Your task to perform on an android device: What's the weather today? Image 0: 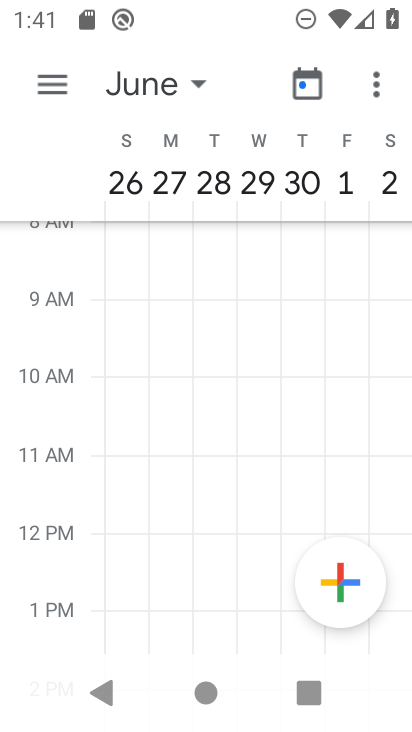
Step 0: press home button
Your task to perform on an android device: What's the weather today? Image 1: 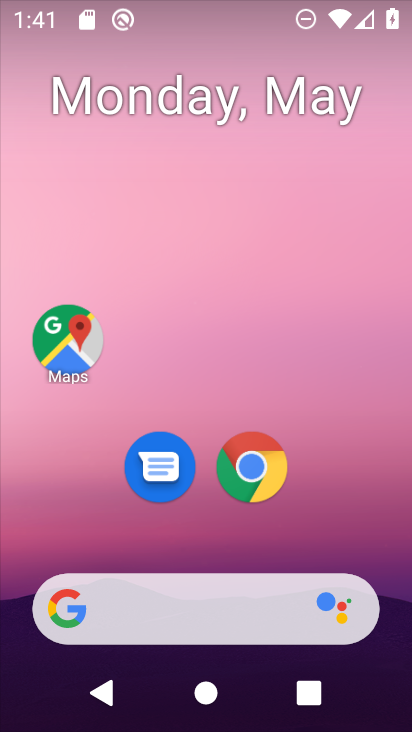
Step 1: drag from (169, 562) to (263, 106)
Your task to perform on an android device: What's the weather today? Image 2: 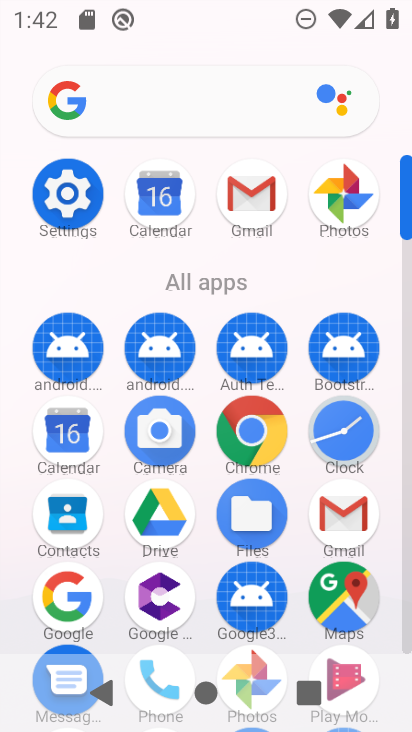
Step 2: click (79, 598)
Your task to perform on an android device: What's the weather today? Image 3: 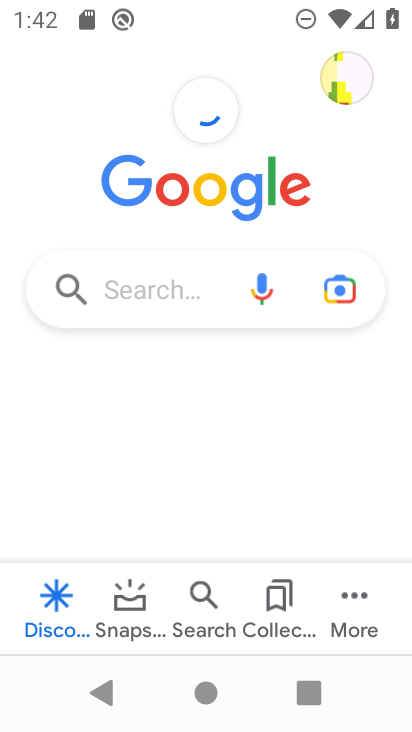
Step 3: click (139, 279)
Your task to perform on an android device: What's the weather today? Image 4: 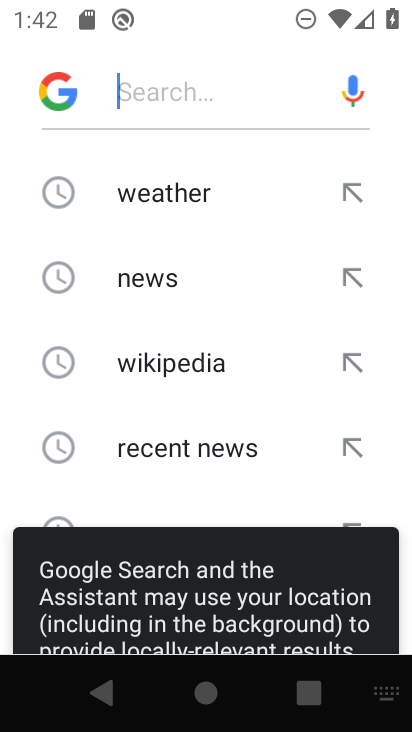
Step 4: click (169, 171)
Your task to perform on an android device: What's the weather today? Image 5: 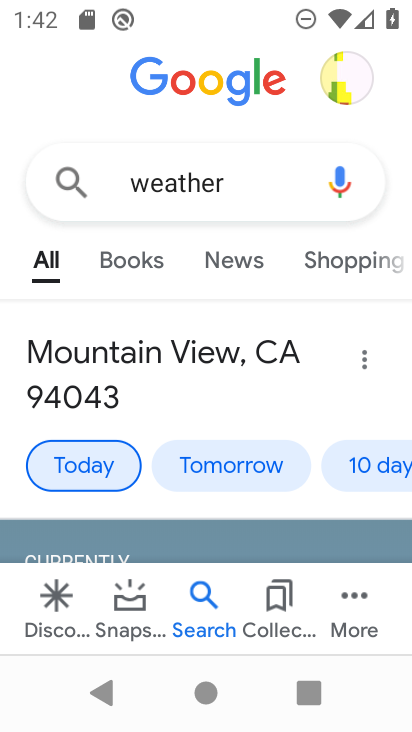
Step 5: task complete